Your task to perform on an android device: Go to accessibility settings Image 0: 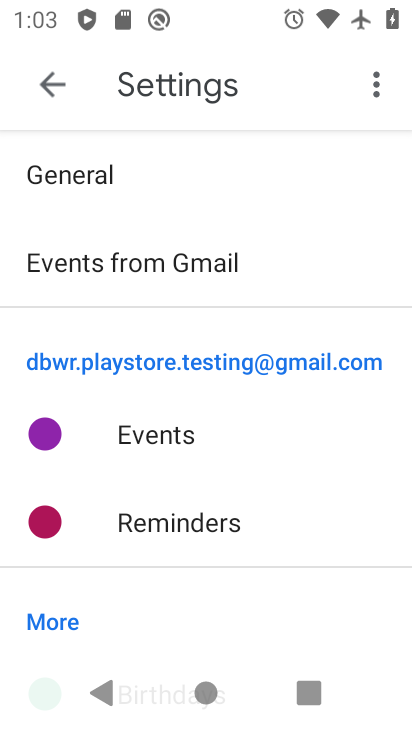
Step 0: press home button
Your task to perform on an android device: Go to accessibility settings Image 1: 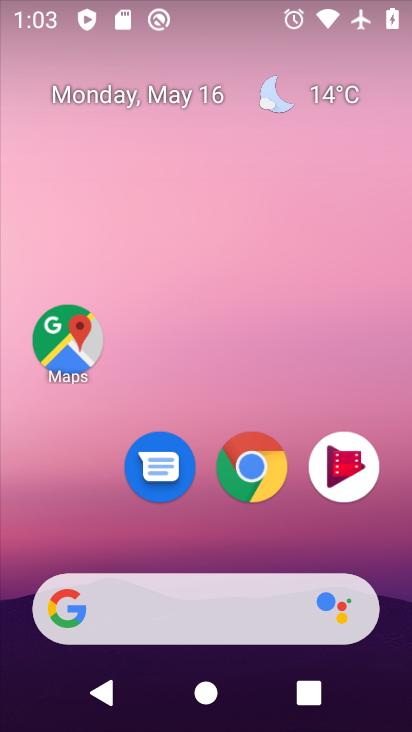
Step 1: drag from (222, 415) to (225, 176)
Your task to perform on an android device: Go to accessibility settings Image 2: 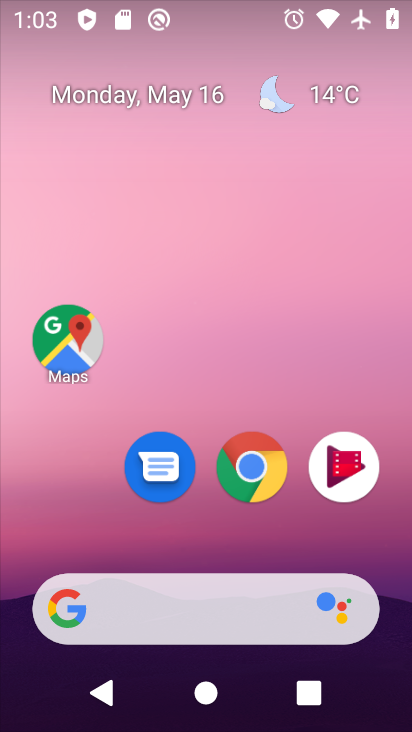
Step 2: drag from (209, 508) to (212, 234)
Your task to perform on an android device: Go to accessibility settings Image 3: 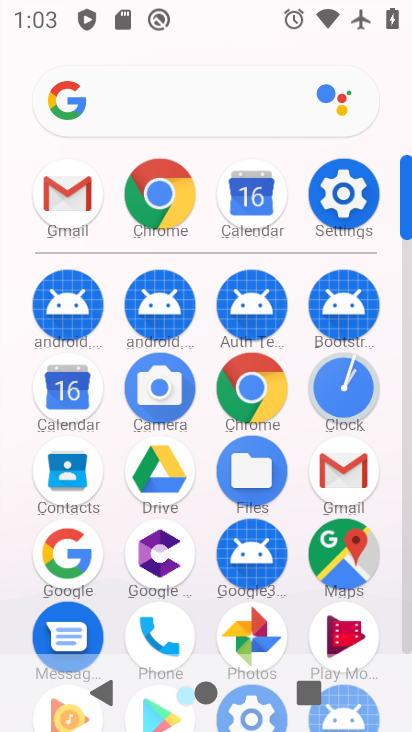
Step 3: click (358, 185)
Your task to perform on an android device: Go to accessibility settings Image 4: 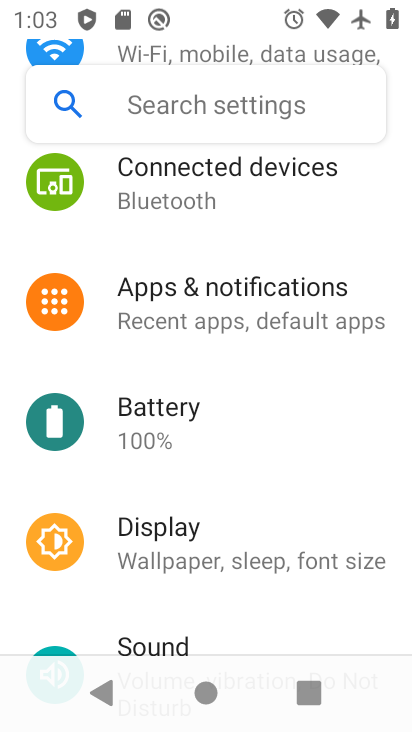
Step 4: drag from (194, 262) to (204, 583)
Your task to perform on an android device: Go to accessibility settings Image 5: 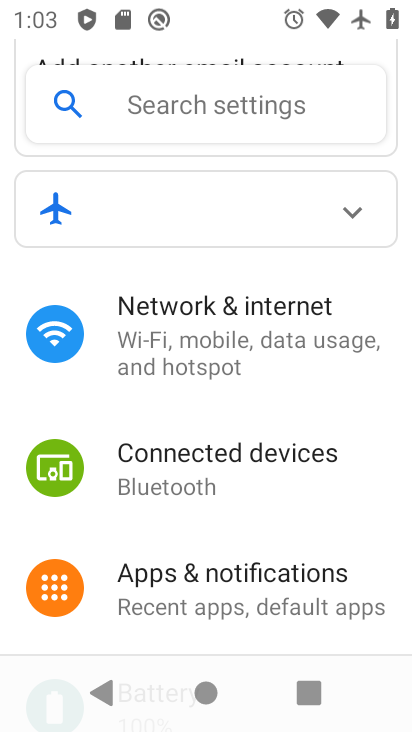
Step 5: drag from (223, 571) to (296, 261)
Your task to perform on an android device: Go to accessibility settings Image 6: 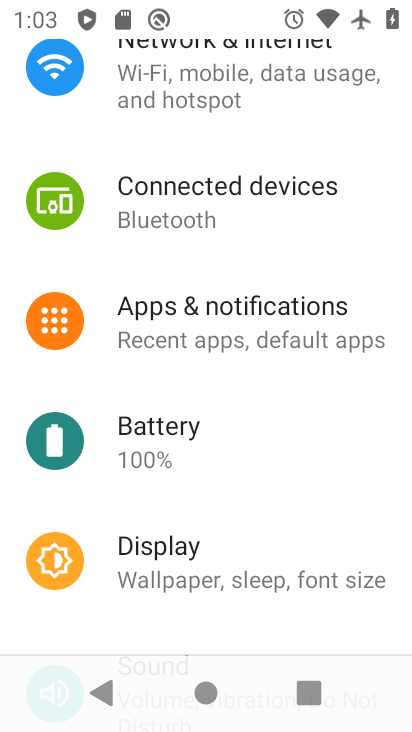
Step 6: drag from (267, 615) to (312, 78)
Your task to perform on an android device: Go to accessibility settings Image 7: 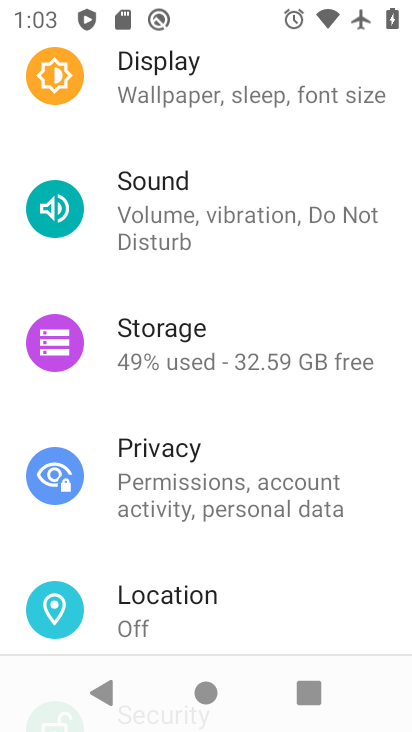
Step 7: drag from (207, 571) to (305, 118)
Your task to perform on an android device: Go to accessibility settings Image 8: 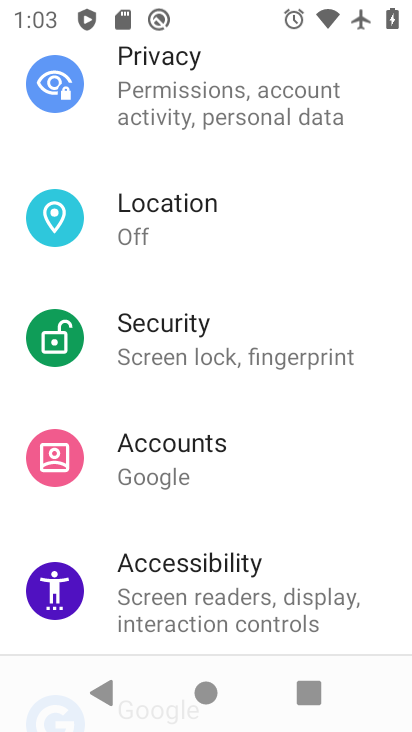
Step 8: click (189, 579)
Your task to perform on an android device: Go to accessibility settings Image 9: 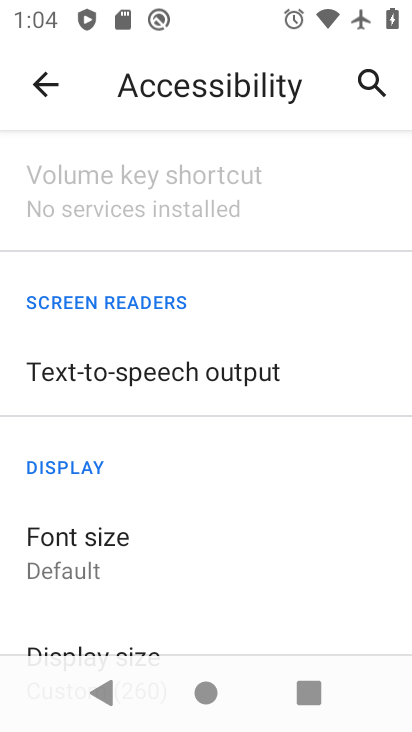
Step 9: task complete